Your task to perform on an android device: Do I have any events today? Image 0: 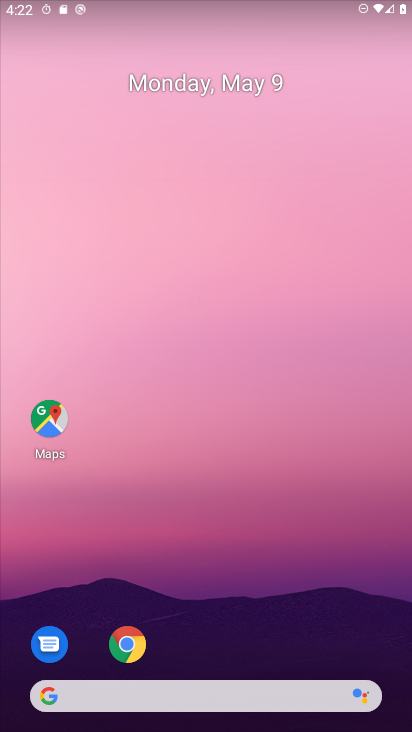
Step 0: drag from (210, 644) to (195, 135)
Your task to perform on an android device: Do I have any events today? Image 1: 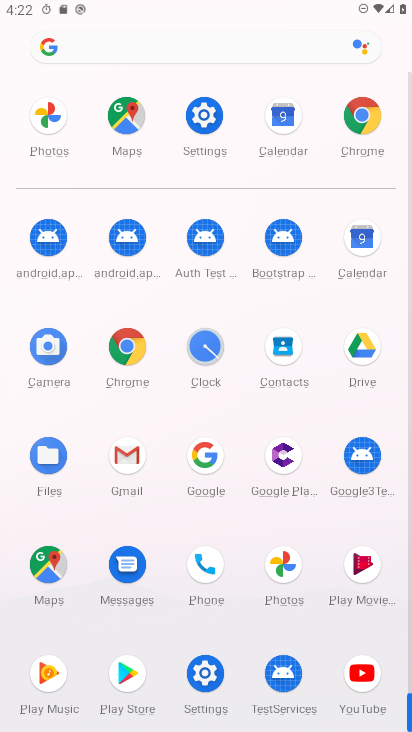
Step 1: click (287, 146)
Your task to perform on an android device: Do I have any events today? Image 2: 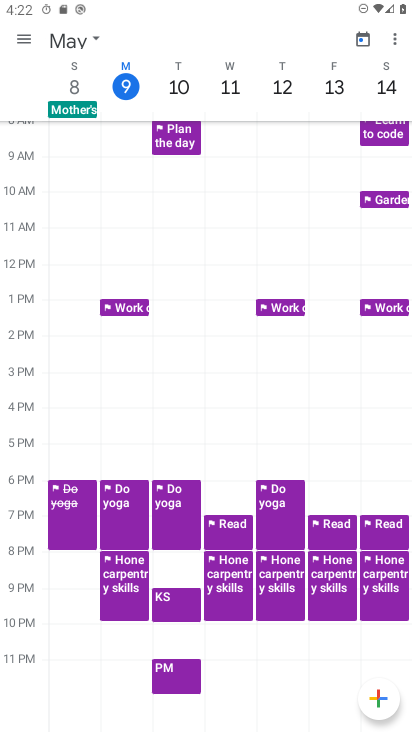
Step 2: drag from (290, 235) to (278, 496)
Your task to perform on an android device: Do I have any events today? Image 3: 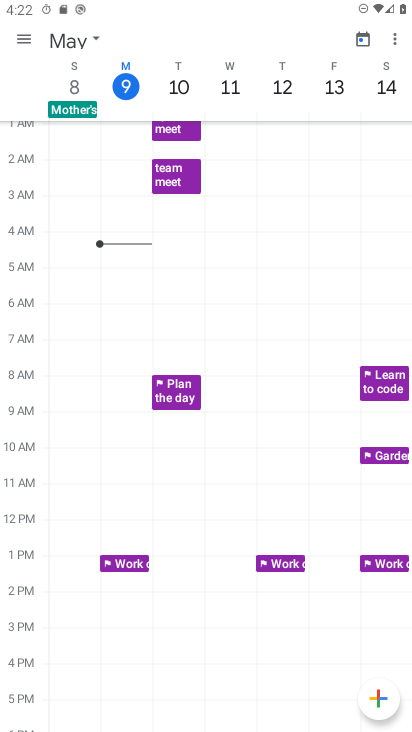
Step 3: drag from (292, 258) to (292, 507)
Your task to perform on an android device: Do I have any events today? Image 4: 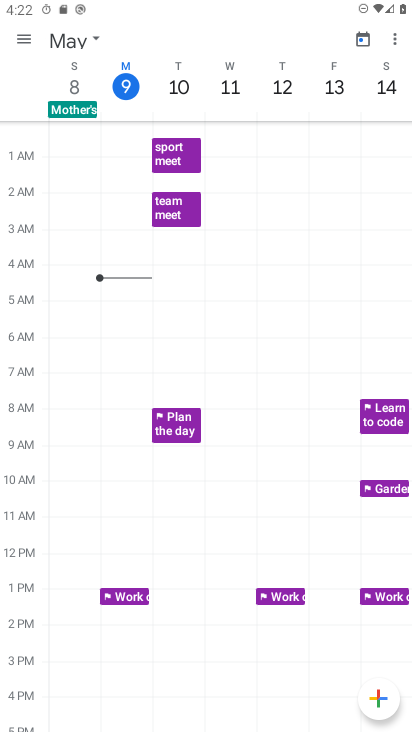
Step 4: drag from (244, 223) to (234, 556)
Your task to perform on an android device: Do I have any events today? Image 5: 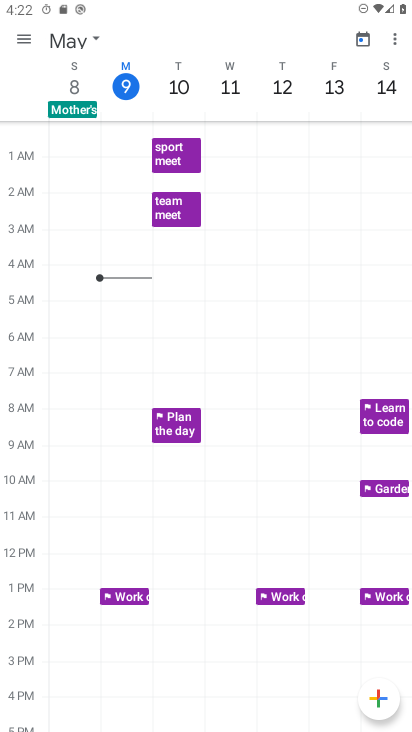
Step 5: drag from (295, 185) to (262, 668)
Your task to perform on an android device: Do I have any events today? Image 6: 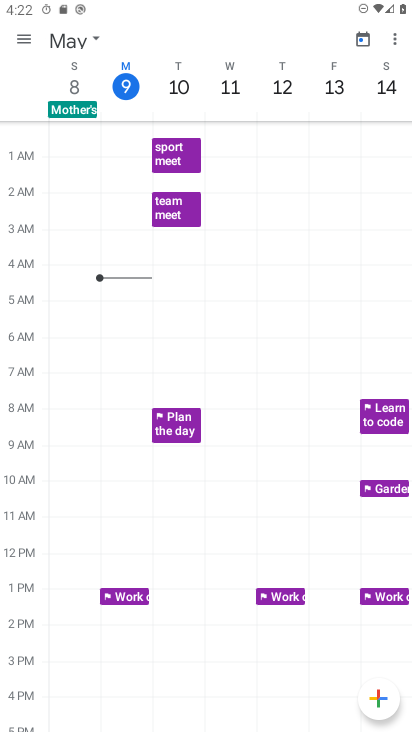
Step 6: click (23, 43)
Your task to perform on an android device: Do I have any events today? Image 7: 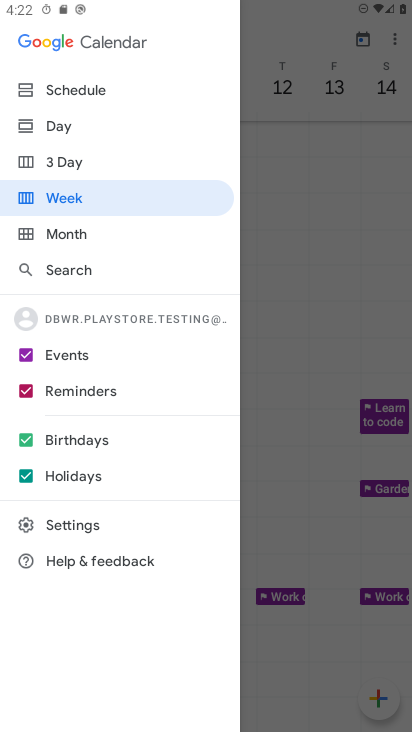
Step 7: click (42, 95)
Your task to perform on an android device: Do I have any events today? Image 8: 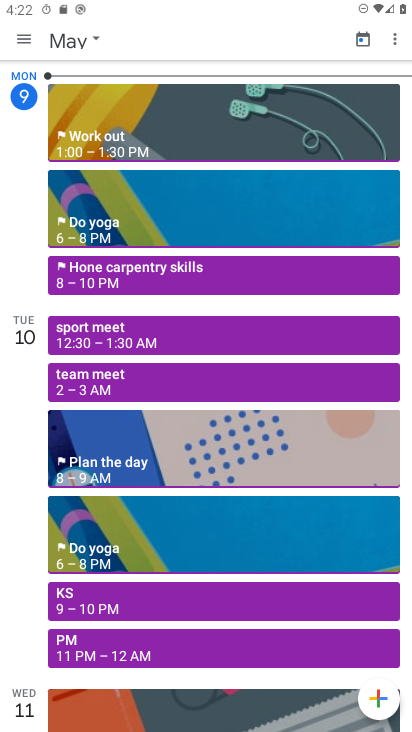
Step 8: task complete